Your task to perform on an android device: Open settings Image 0: 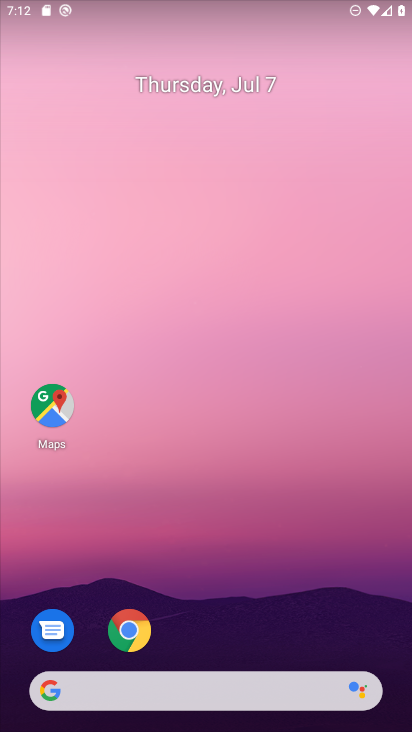
Step 0: drag from (285, 630) to (149, 66)
Your task to perform on an android device: Open settings Image 1: 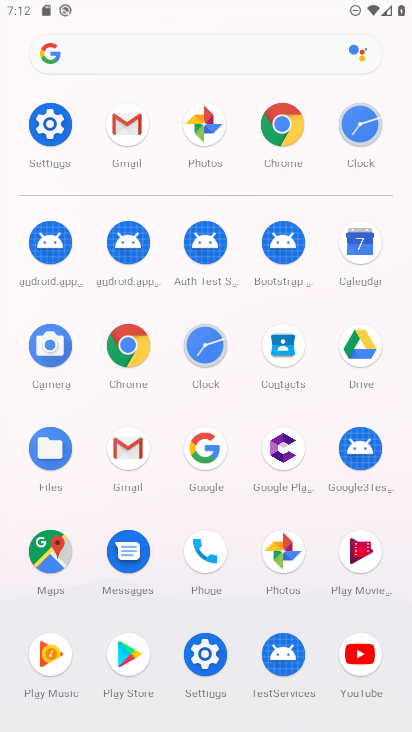
Step 1: click (55, 121)
Your task to perform on an android device: Open settings Image 2: 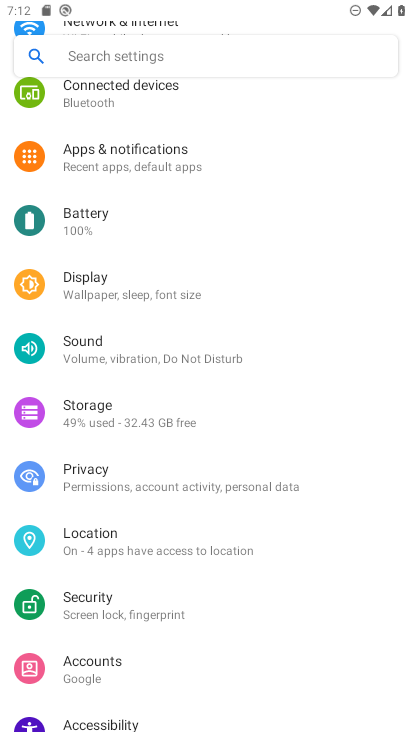
Step 2: task complete